Your task to perform on an android device: check storage Image 0: 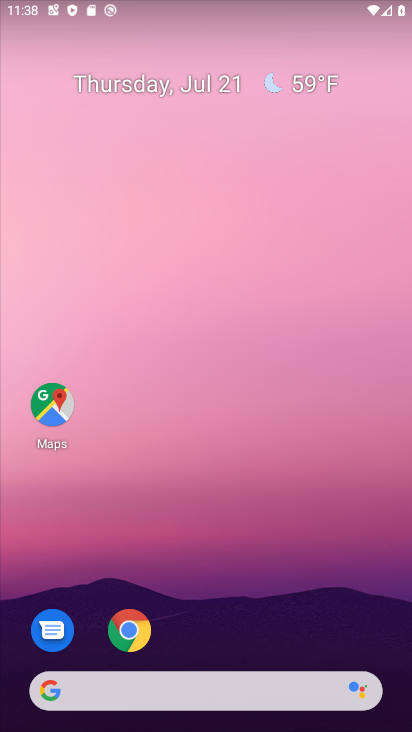
Step 0: drag from (198, 669) to (189, 357)
Your task to perform on an android device: check storage Image 1: 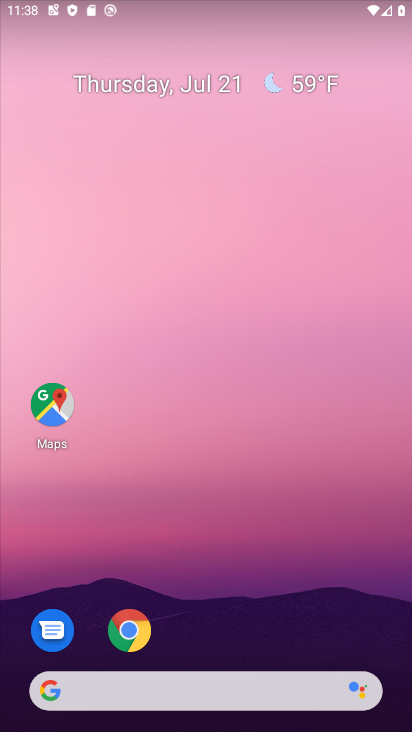
Step 1: drag from (185, 682) to (211, 204)
Your task to perform on an android device: check storage Image 2: 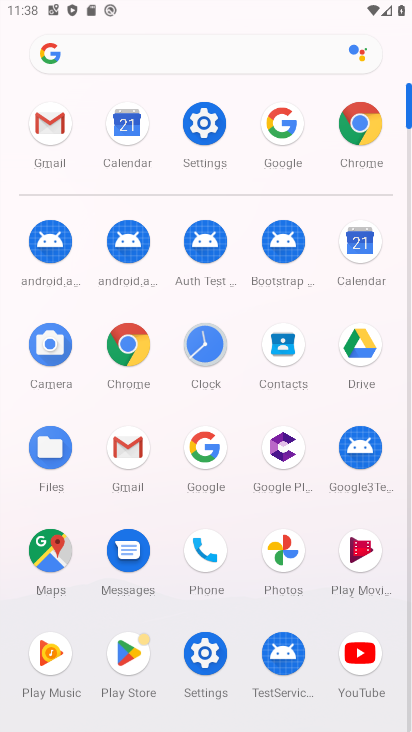
Step 2: click (201, 138)
Your task to perform on an android device: check storage Image 3: 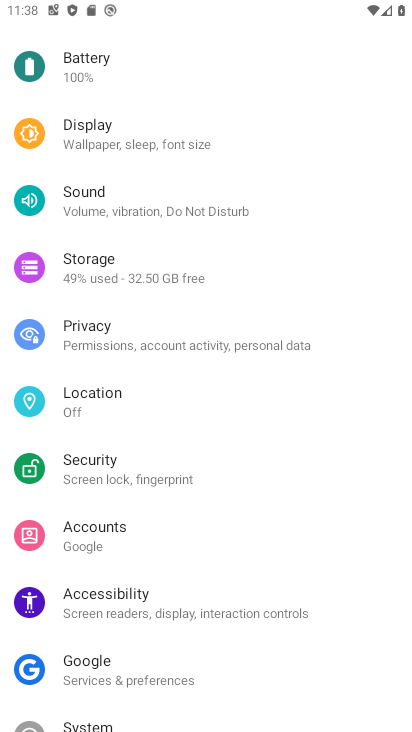
Step 3: click (111, 280)
Your task to perform on an android device: check storage Image 4: 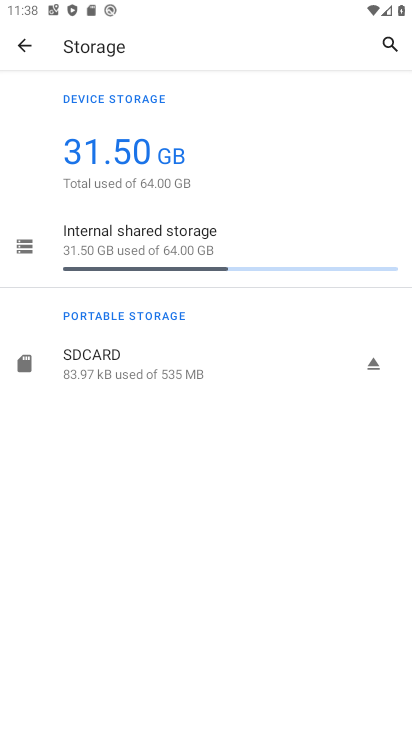
Step 4: task complete